Your task to perform on an android device: turn off javascript in the chrome app Image 0: 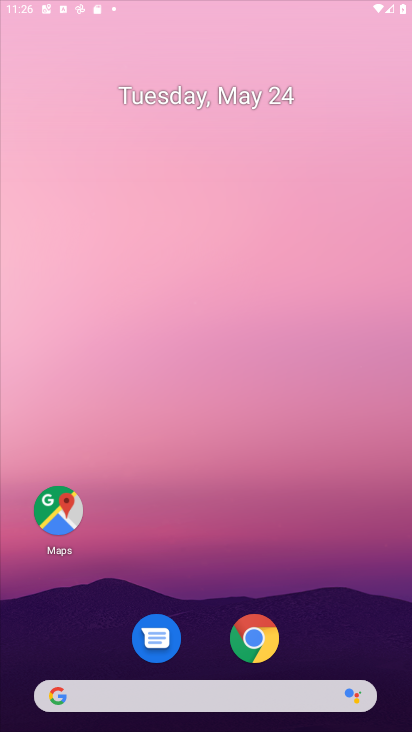
Step 0: click (324, 410)
Your task to perform on an android device: turn off javascript in the chrome app Image 1: 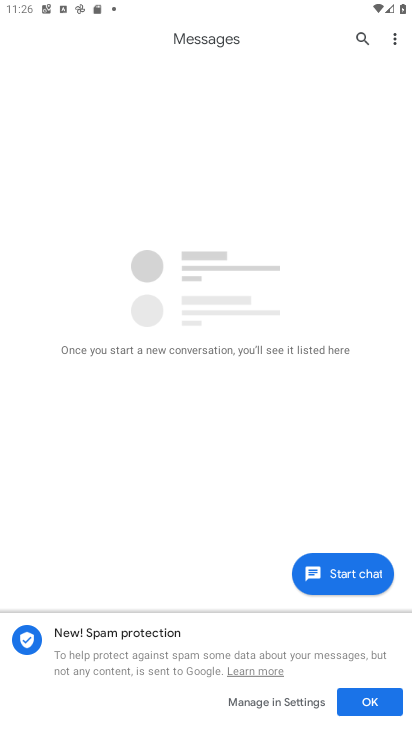
Step 1: press home button
Your task to perform on an android device: turn off javascript in the chrome app Image 2: 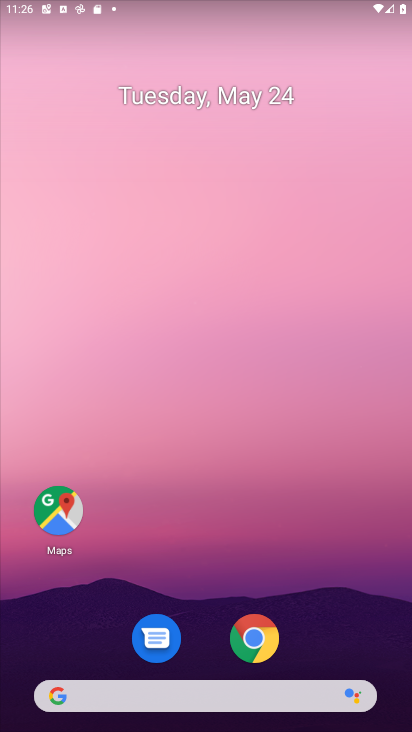
Step 2: press home button
Your task to perform on an android device: turn off javascript in the chrome app Image 3: 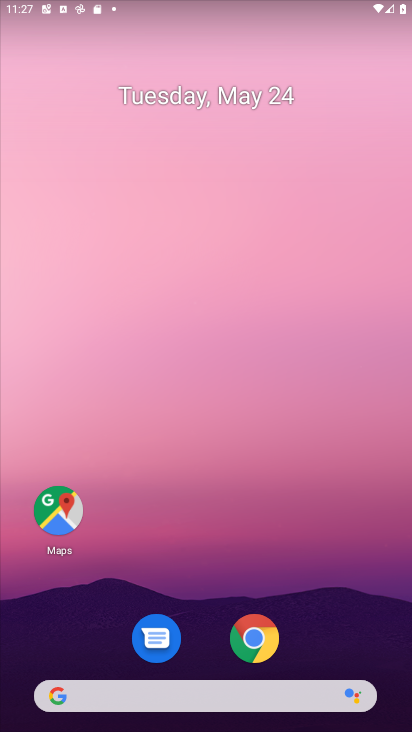
Step 3: click (254, 630)
Your task to perform on an android device: turn off javascript in the chrome app Image 4: 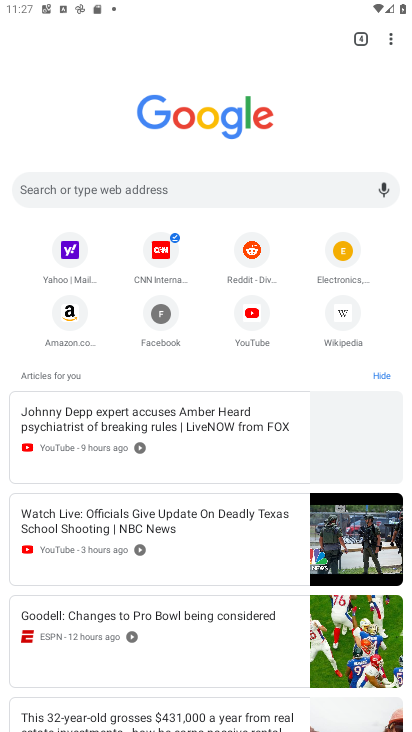
Step 4: click (391, 34)
Your task to perform on an android device: turn off javascript in the chrome app Image 5: 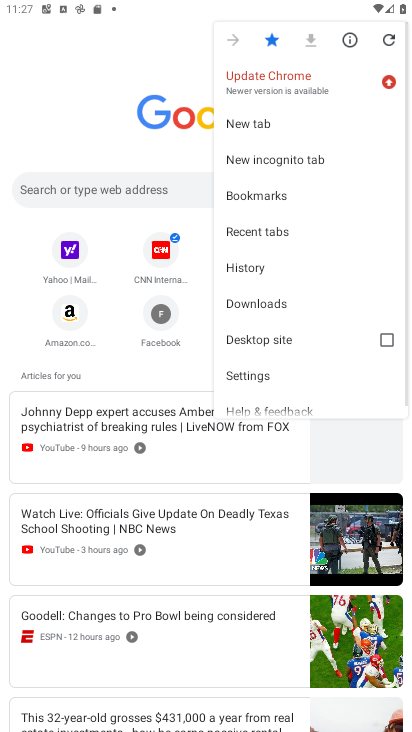
Step 5: click (319, 392)
Your task to perform on an android device: turn off javascript in the chrome app Image 6: 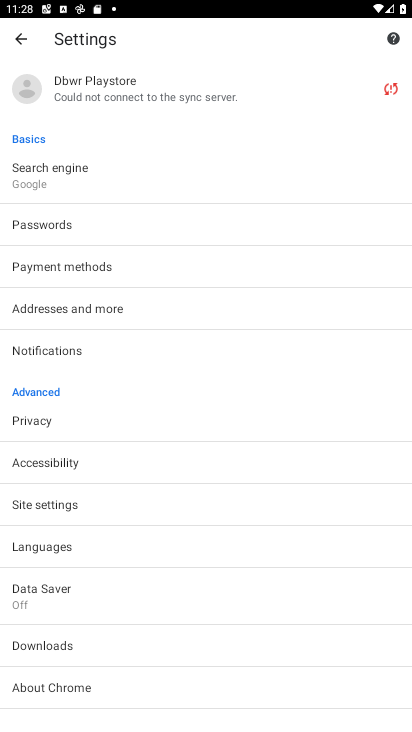
Step 6: click (112, 502)
Your task to perform on an android device: turn off javascript in the chrome app Image 7: 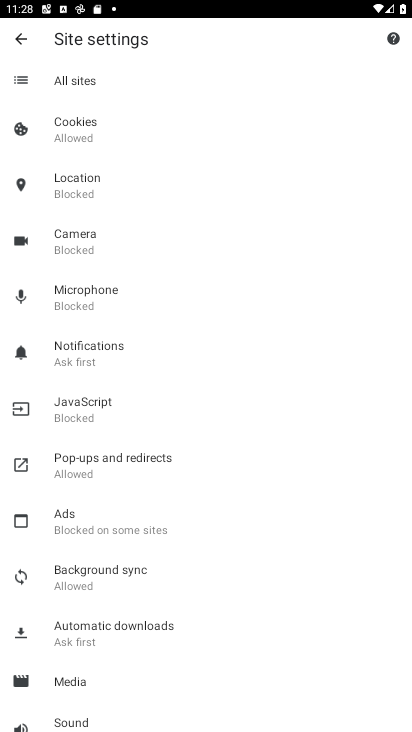
Step 7: click (154, 398)
Your task to perform on an android device: turn off javascript in the chrome app Image 8: 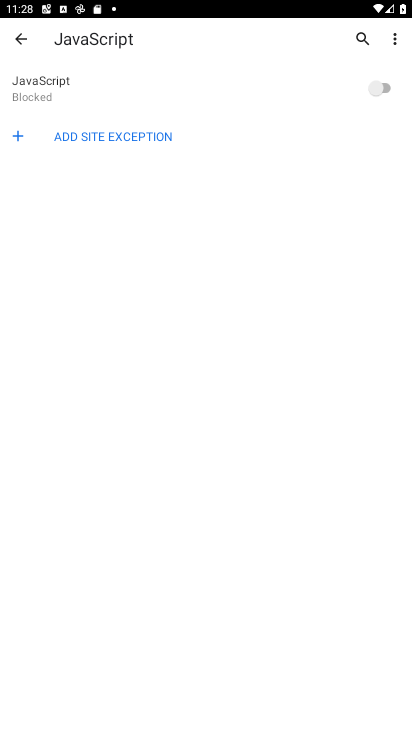
Step 8: task complete